Your task to perform on an android device: Open accessibility settings Image 0: 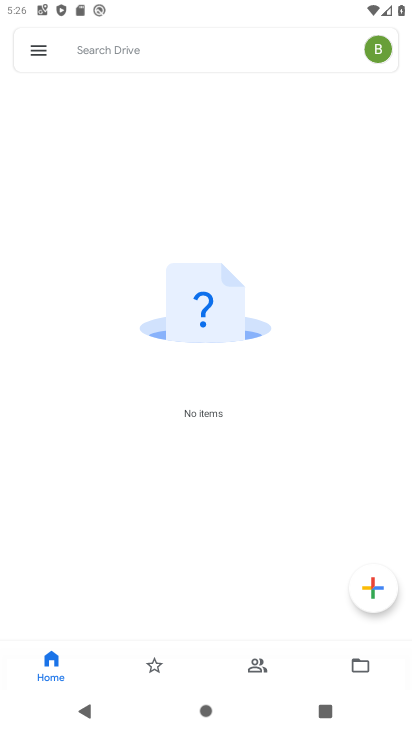
Step 0: press back button
Your task to perform on an android device: Open accessibility settings Image 1: 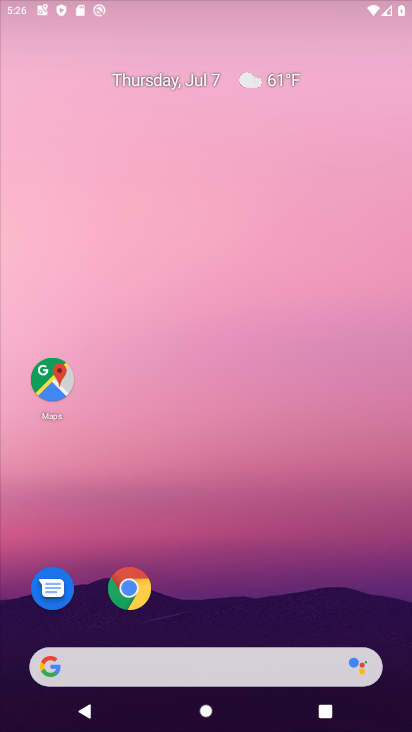
Step 1: drag from (245, 578) to (278, 3)
Your task to perform on an android device: Open accessibility settings Image 2: 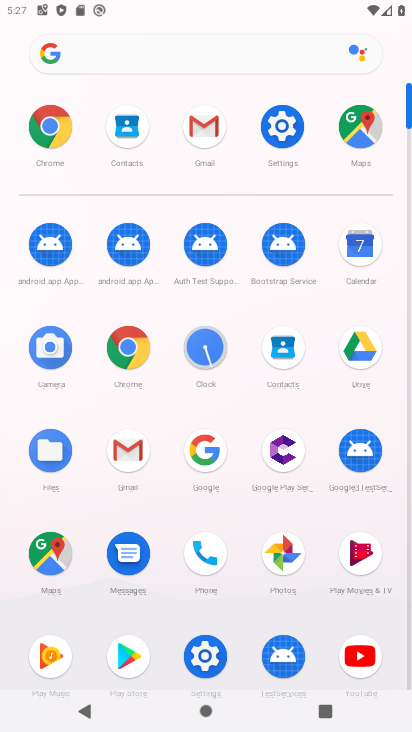
Step 2: click (270, 115)
Your task to perform on an android device: Open accessibility settings Image 3: 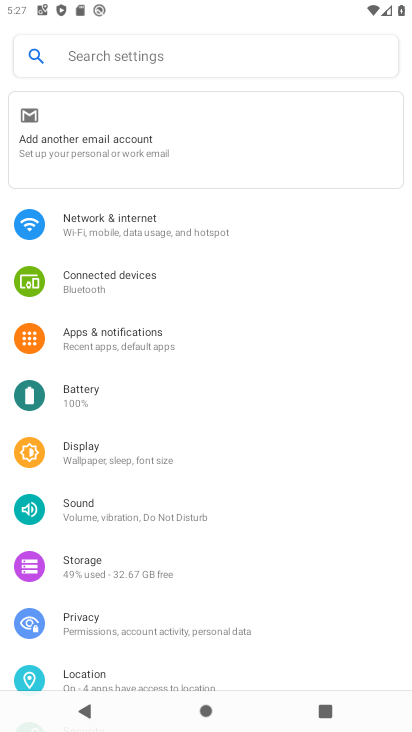
Step 3: drag from (175, 631) to (252, 80)
Your task to perform on an android device: Open accessibility settings Image 4: 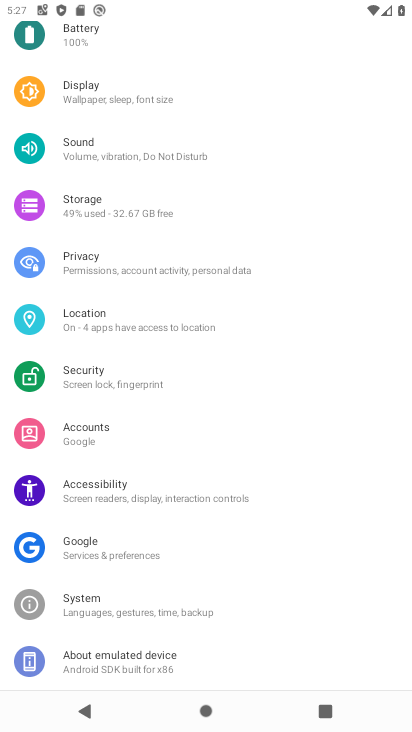
Step 4: click (108, 506)
Your task to perform on an android device: Open accessibility settings Image 5: 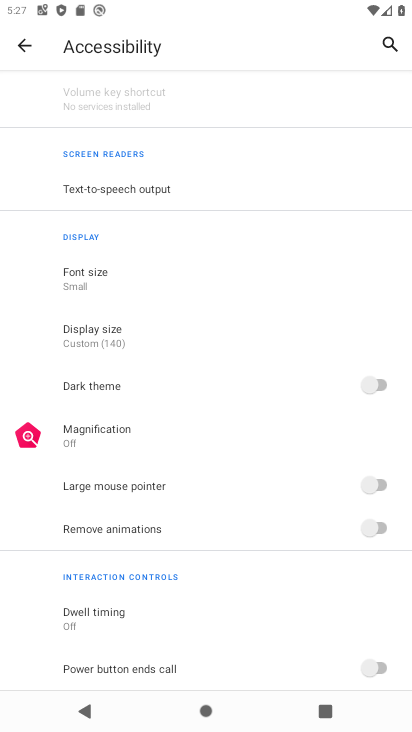
Step 5: task complete